Your task to perform on an android device: see sites visited before in the chrome app Image 0: 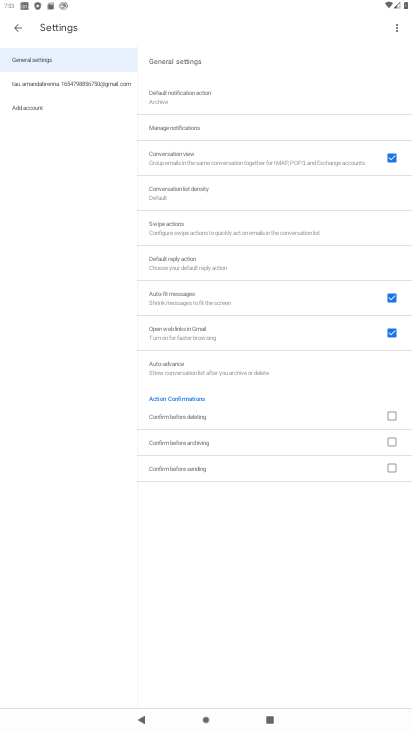
Step 0: press home button
Your task to perform on an android device: see sites visited before in the chrome app Image 1: 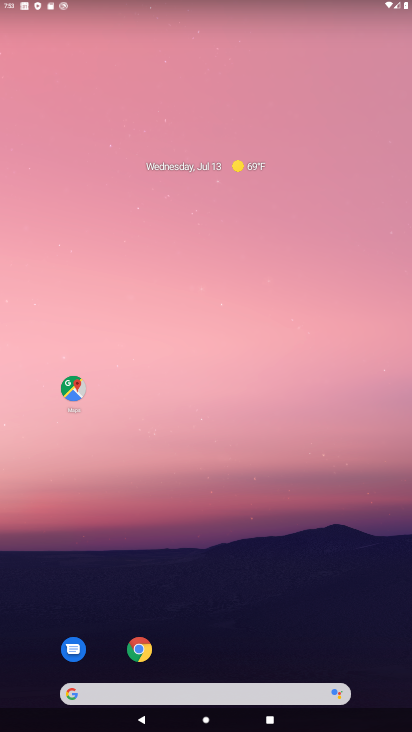
Step 1: click (139, 649)
Your task to perform on an android device: see sites visited before in the chrome app Image 2: 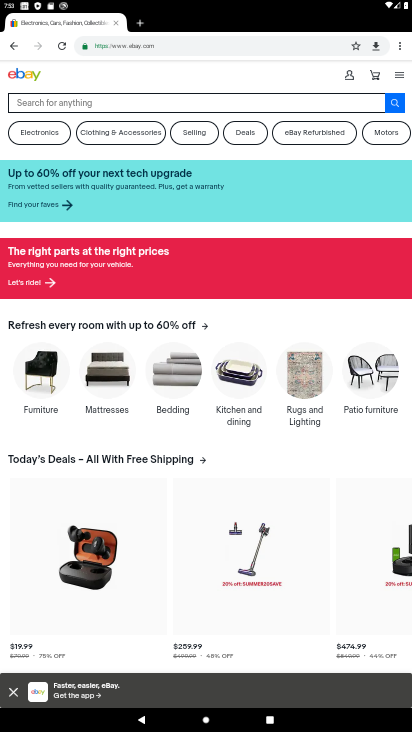
Step 2: click (400, 46)
Your task to perform on an android device: see sites visited before in the chrome app Image 3: 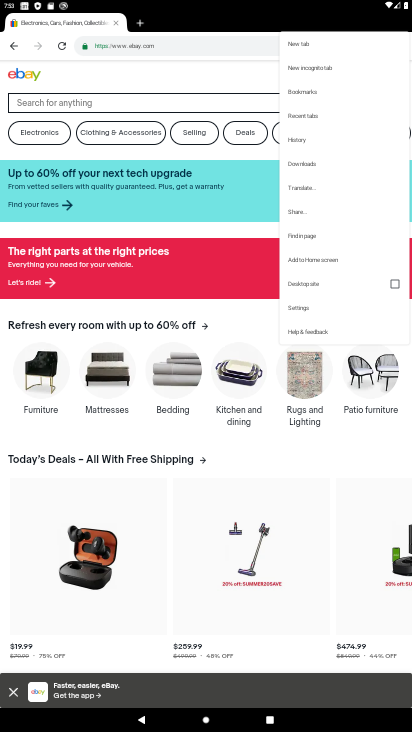
Step 3: click (295, 141)
Your task to perform on an android device: see sites visited before in the chrome app Image 4: 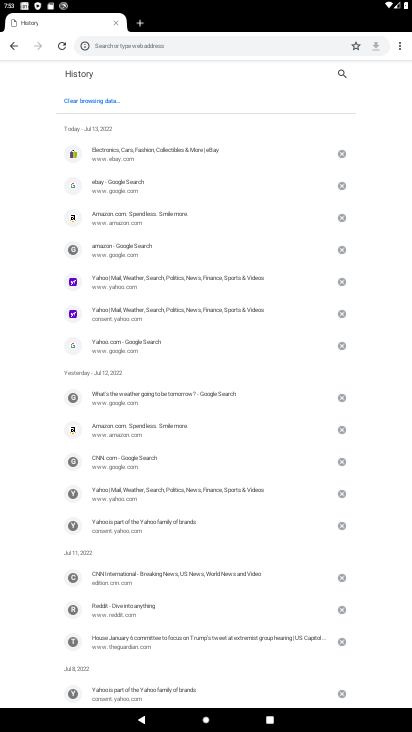
Step 4: task complete